Your task to perform on an android device: change the clock style Image 0: 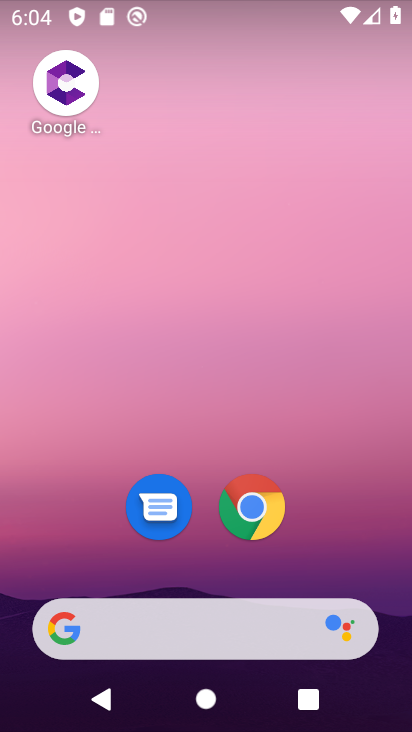
Step 0: drag from (82, 606) to (253, 2)
Your task to perform on an android device: change the clock style Image 1: 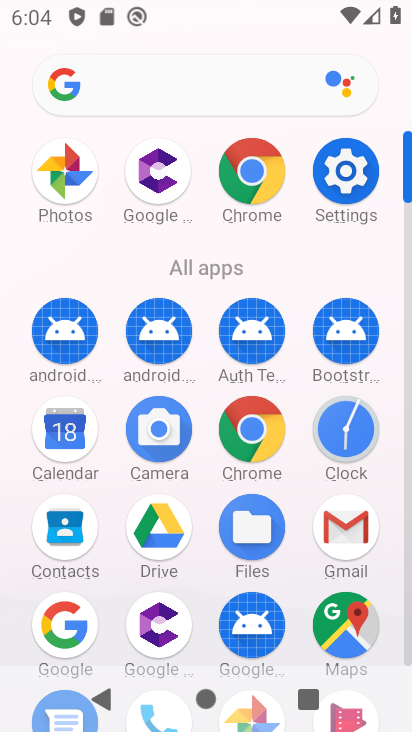
Step 1: click (344, 442)
Your task to perform on an android device: change the clock style Image 2: 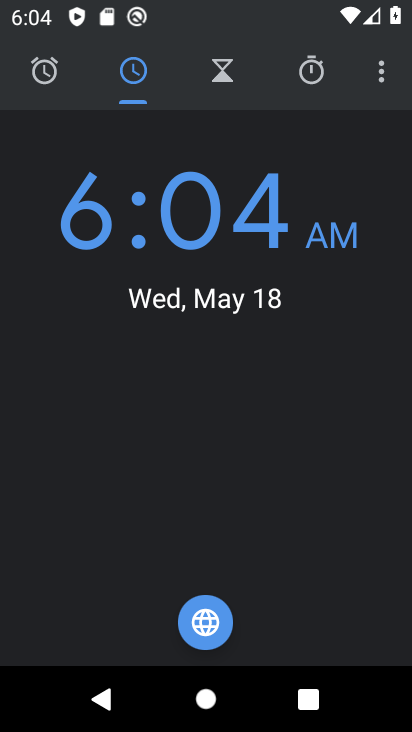
Step 2: click (392, 82)
Your task to perform on an android device: change the clock style Image 3: 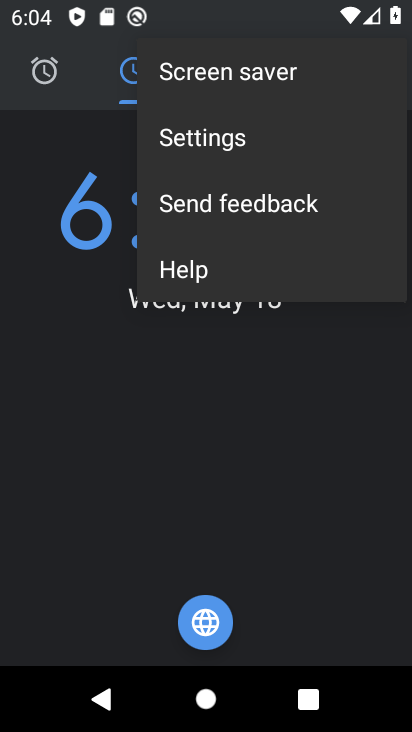
Step 3: click (232, 152)
Your task to perform on an android device: change the clock style Image 4: 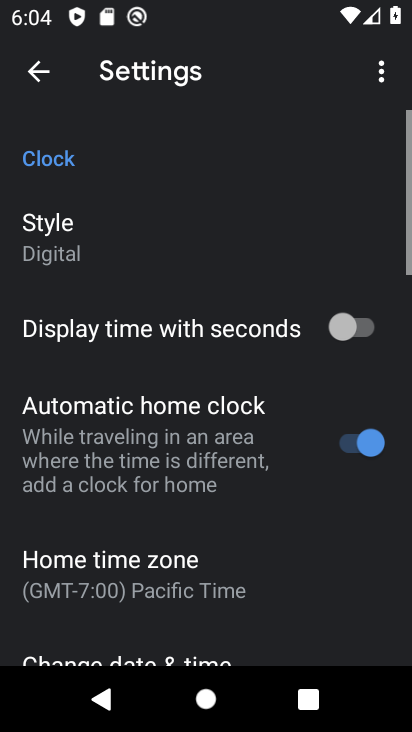
Step 4: drag from (107, 233) to (69, 233)
Your task to perform on an android device: change the clock style Image 5: 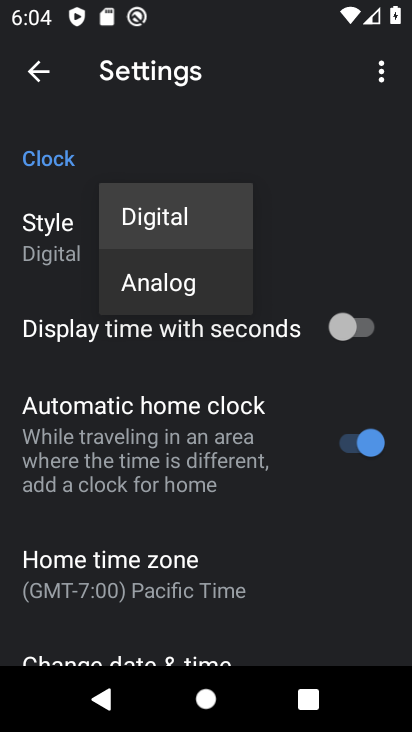
Step 5: click (174, 281)
Your task to perform on an android device: change the clock style Image 6: 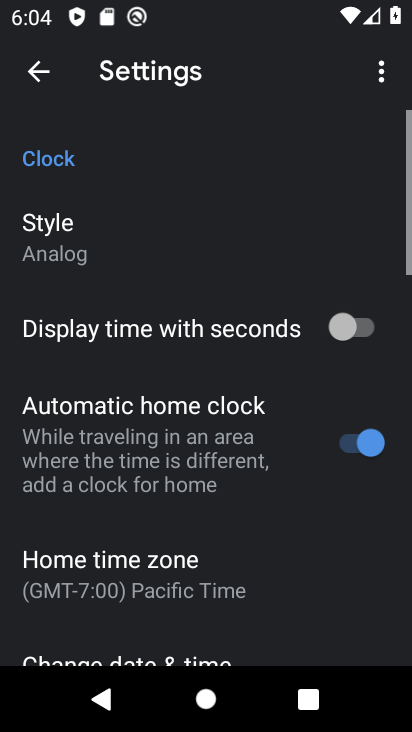
Step 6: task complete